Your task to perform on an android device: Open Google Maps Image 0: 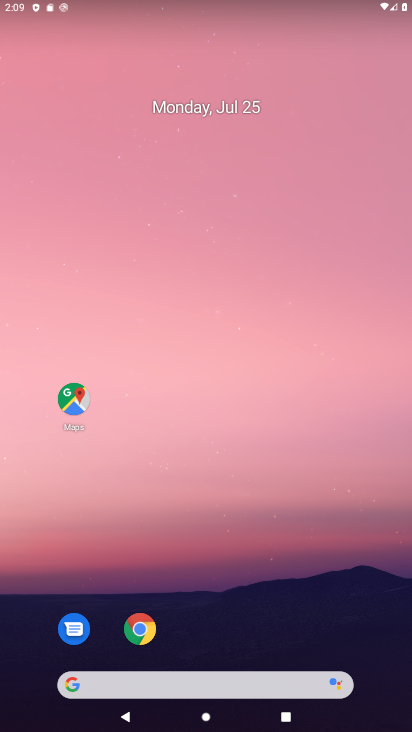
Step 0: drag from (320, 696) to (256, 175)
Your task to perform on an android device: Open Google Maps Image 1: 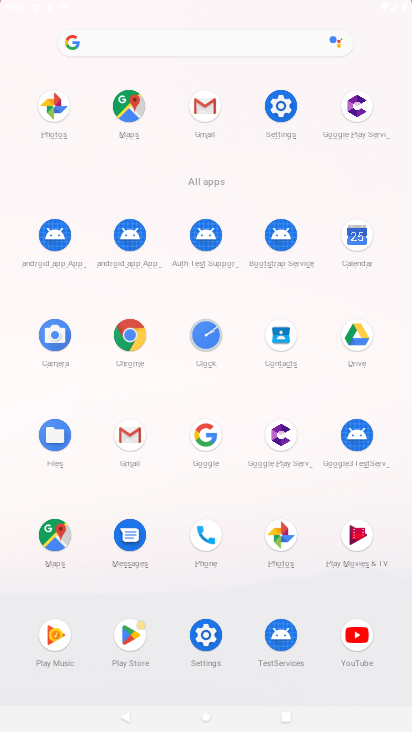
Step 1: drag from (266, 615) to (197, 267)
Your task to perform on an android device: Open Google Maps Image 2: 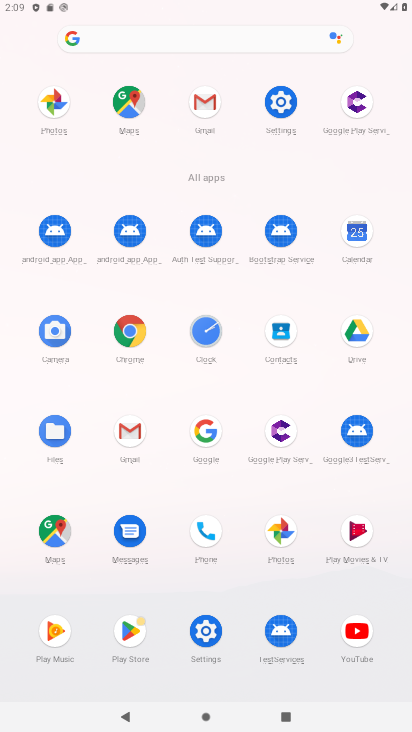
Step 2: click (54, 528)
Your task to perform on an android device: Open Google Maps Image 3: 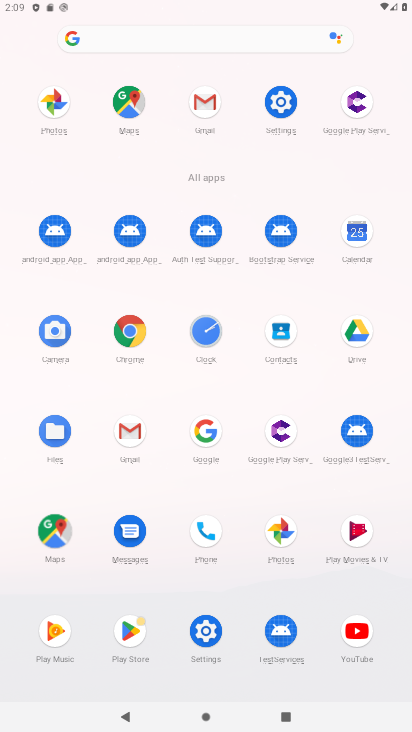
Step 3: click (61, 525)
Your task to perform on an android device: Open Google Maps Image 4: 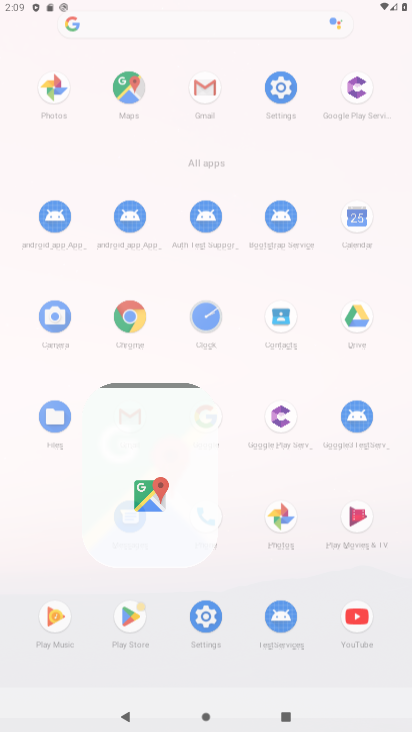
Step 4: click (62, 524)
Your task to perform on an android device: Open Google Maps Image 5: 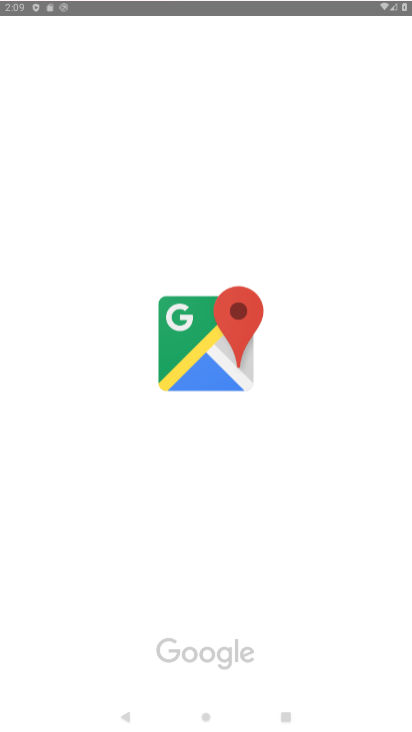
Step 5: click (62, 524)
Your task to perform on an android device: Open Google Maps Image 6: 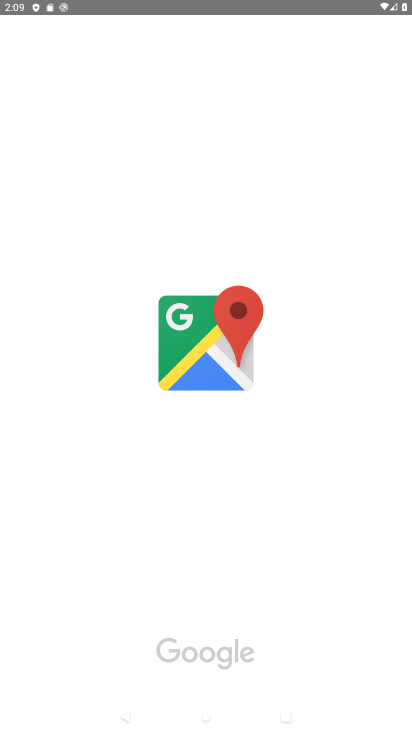
Step 6: click (48, 542)
Your task to perform on an android device: Open Google Maps Image 7: 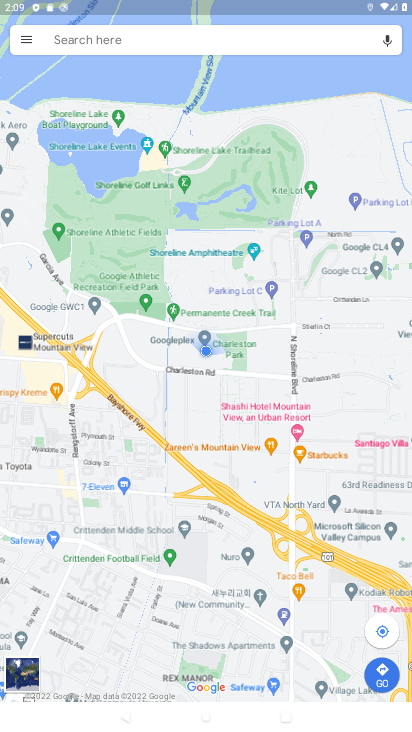
Step 7: task complete